Your task to perform on an android device: Open the calendar app, open the side menu, and click the "Day" option Image 0: 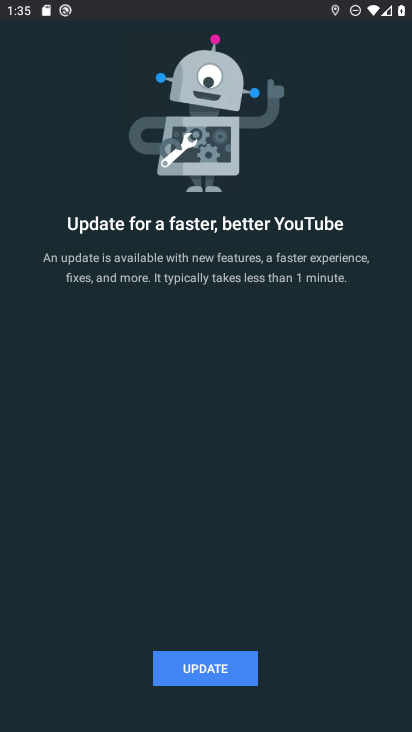
Step 0: press home button
Your task to perform on an android device: Open the calendar app, open the side menu, and click the "Day" option Image 1: 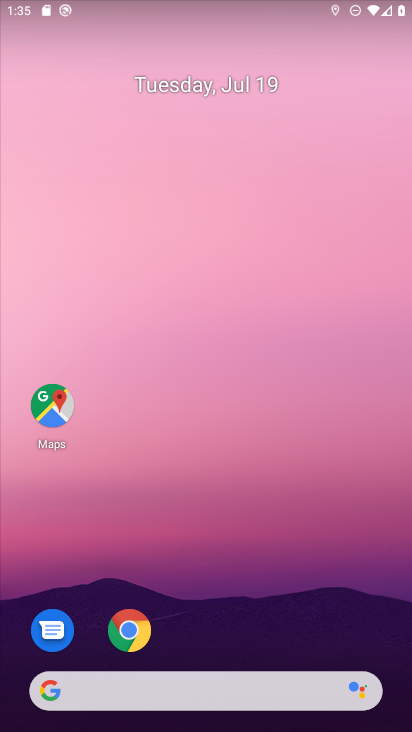
Step 1: drag from (180, 690) to (284, 128)
Your task to perform on an android device: Open the calendar app, open the side menu, and click the "Day" option Image 2: 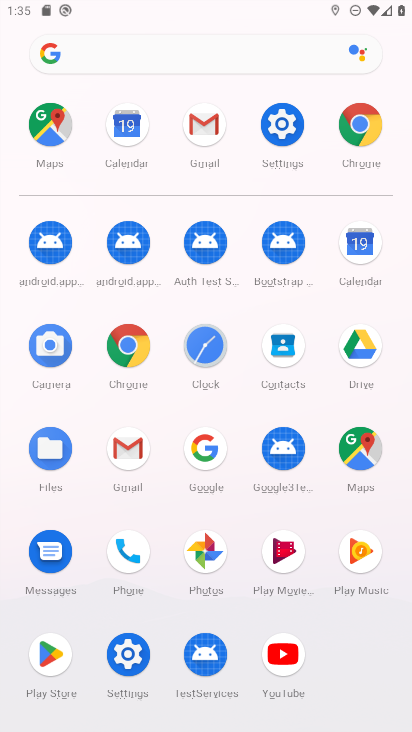
Step 2: click (361, 256)
Your task to perform on an android device: Open the calendar app, open the side menu, and click the "Day" option Image 3: 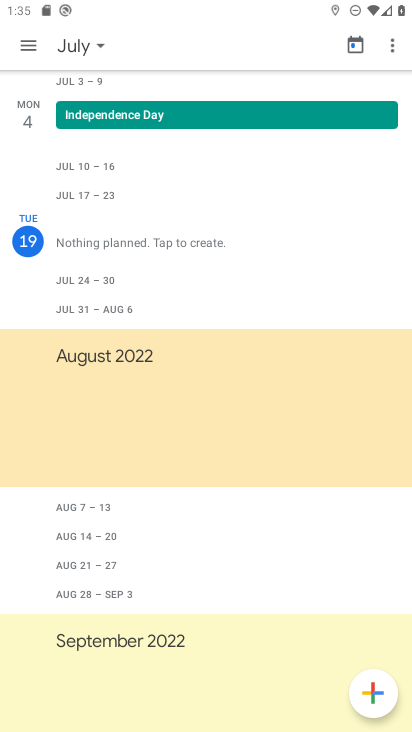
Step 3: click (28, 41)
Your task to perform on an android device: Open the calendar app, open the side menu, and click the "Day" option Image 4: 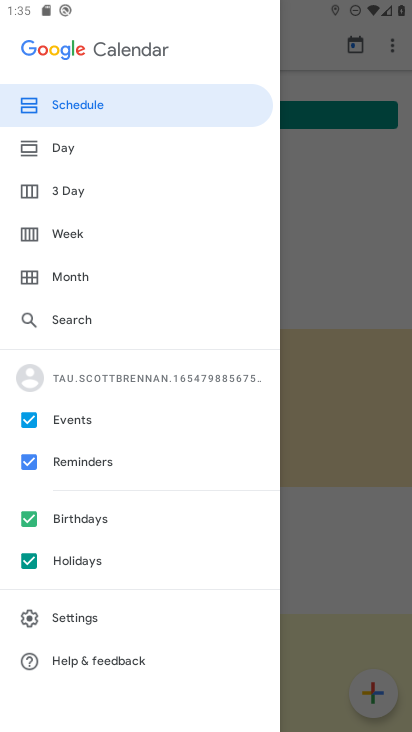
Step 4: click (61, 151)
Your task to perform on an android device: Open the calendar app, open the side menu, and click the "Day" option Image 5: 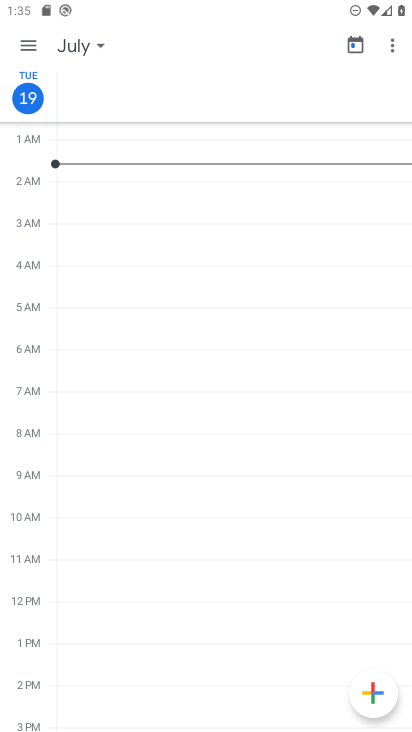
Step 5: task complete